Your task to perform on an android device: turn on data saver in the chrome app Image 0: 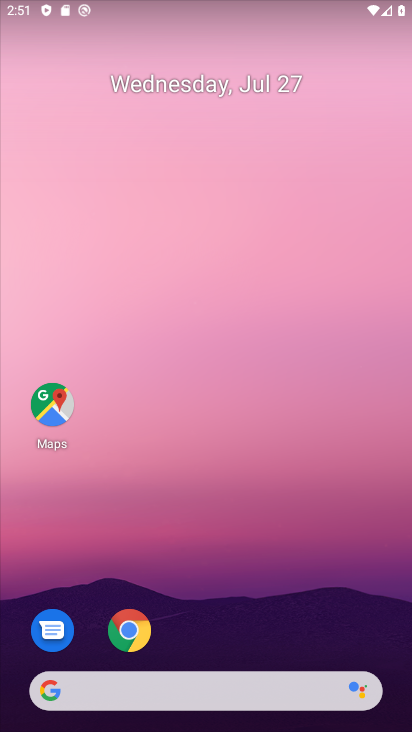
Step 0: drag from (250, 526) to (219, 163)
Your task to perform on an android device: turn on data saver in the chrome app Image 1: 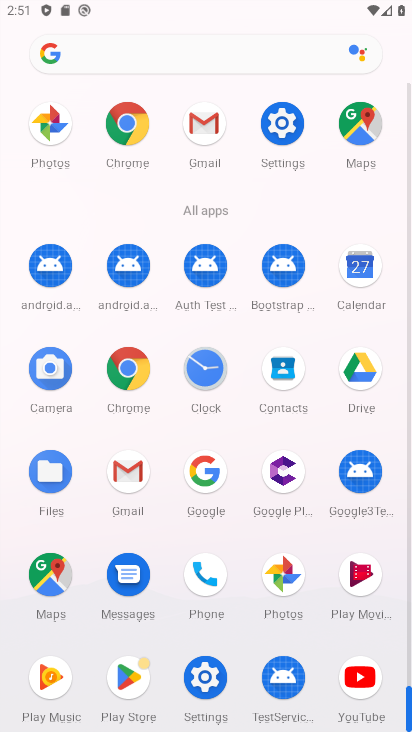
Step 1: click (124, 109)
Your task to perform on an android device: turn on data saver in the chrome app Image 2: 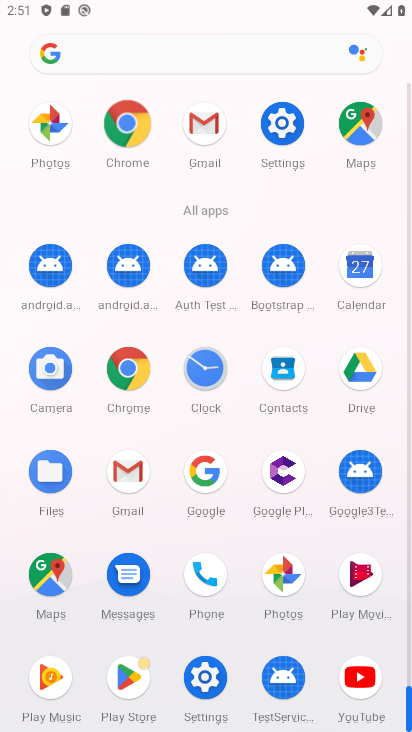
Step 2: click (125, 110)
Your task to perform on an android device: turn on data saver in the chrome app Image 3: 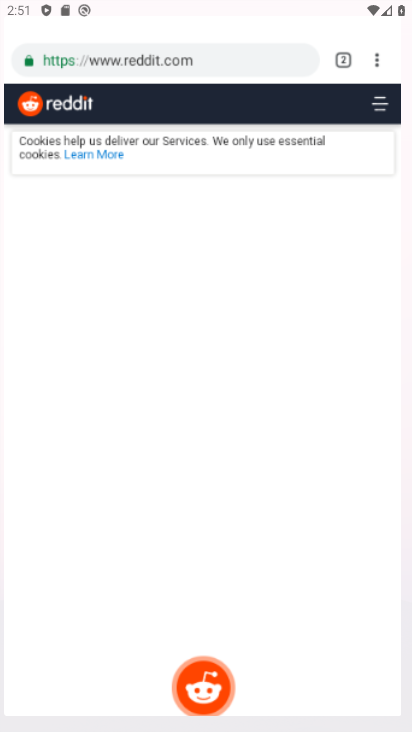
Step 3: click (126, 110)
Your task to perform on an android device: turn on data saver in the chrome app Image 4: 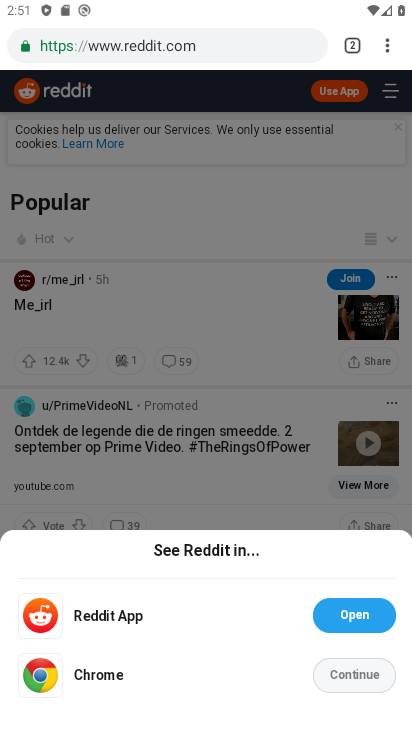
Step 4: click (93, 674)
Your task to perform on an android device: turn on data saver in the chrome app Image 5: 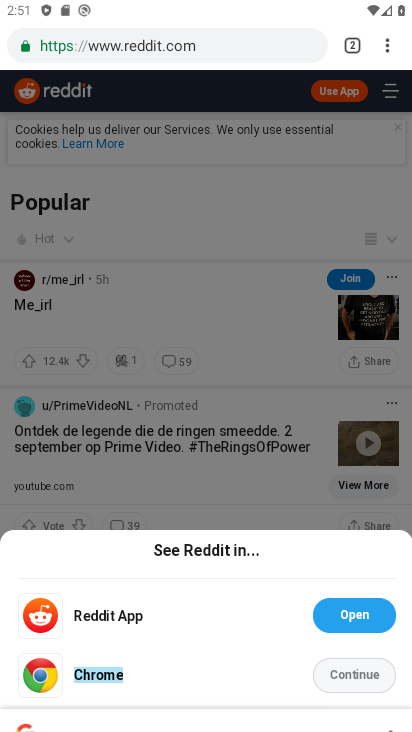
Step 5: click (93, 674)
Your task to perform on an android device: turn on data saver in the chrome app Image 6: 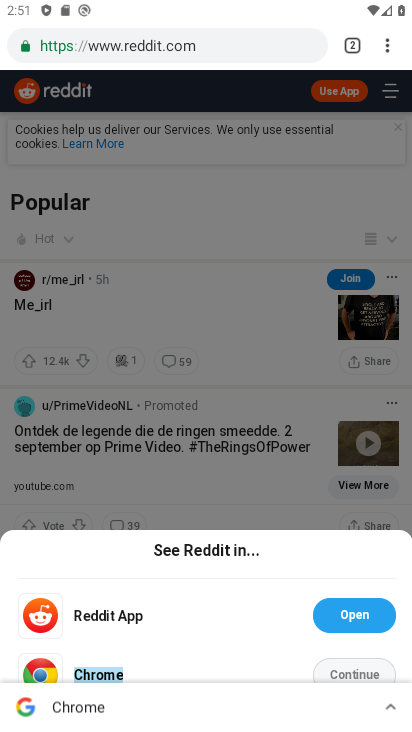
Step 6: click (360, 615)
Your task to perform on an android device: turn on data saver in the chrome app Image 7: 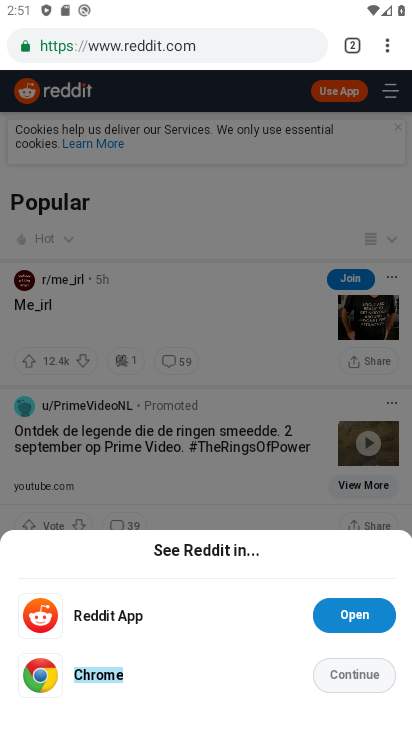
Step 7: click (360, 615)
Your task to perform on an android device: turn on data saver in the chrome app Image 8: 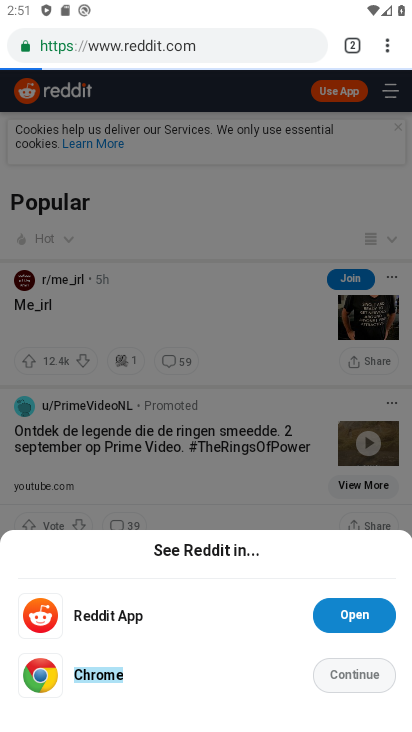
Step 8: click (360, 615)
Your task to perform on an android device: turn on data saver in the chrome app Image 9: 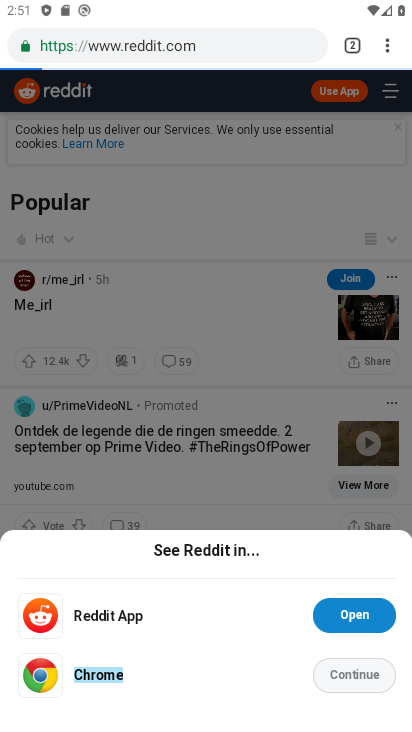
Step 9: click (360, 615)
Your task to perform on an android device: turn on data saver in the chrome app Image 10: 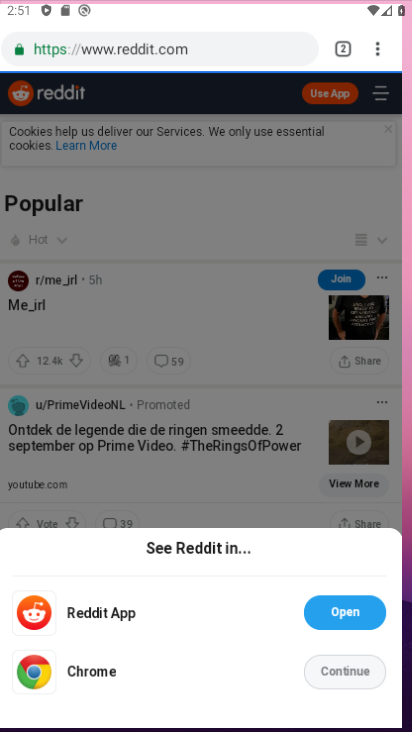
Step 10: click (362, 613)
Your task to perform on an android device: turn on data saver in the chrome app Image 11: 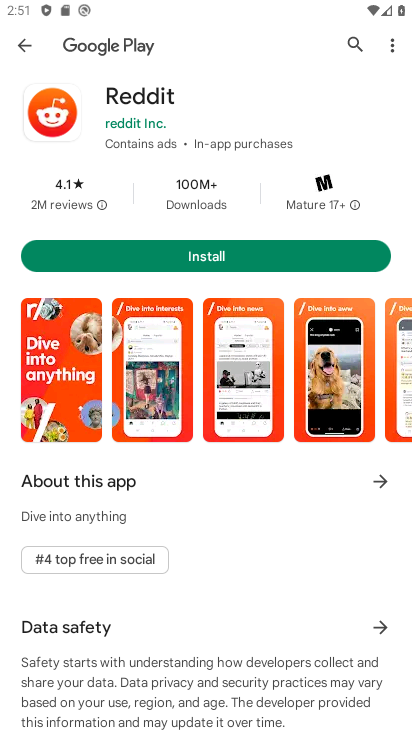
Step 11: click (23, 40)
Your task to perform on an android device: turn on data saver in the chrome app Image 12: 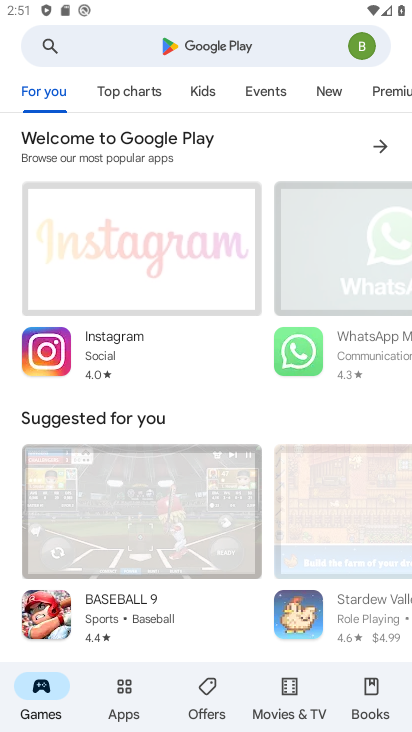
Step 12: press back button
Your task to perform on an android device: turn on data saver in the chrome app Image 13: 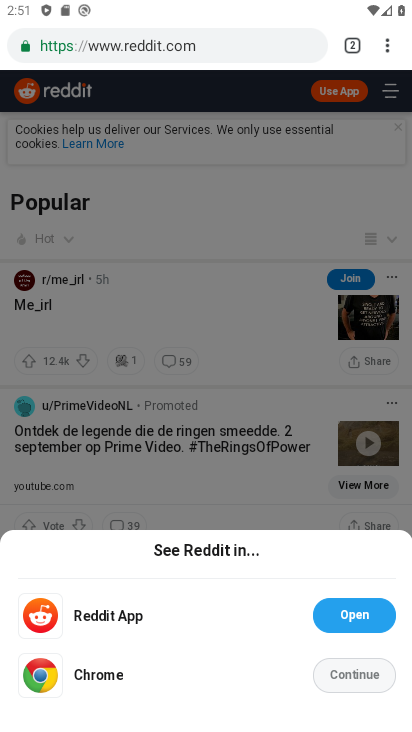
Step 13: press back button
Your task to perform on an android device: turn on data saver in the chrome app Image 14: 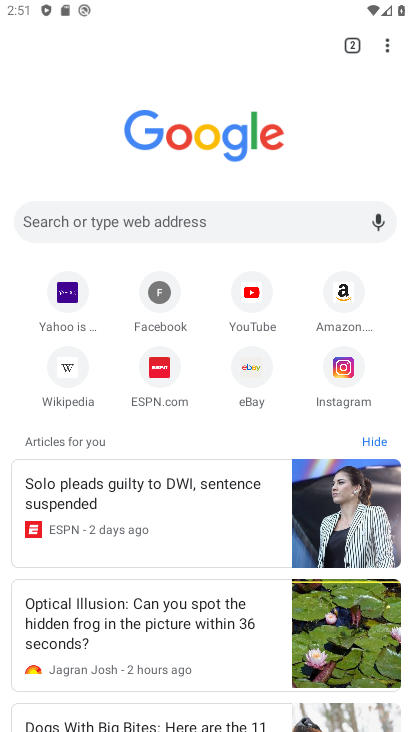
Step 14: drag from (384, 45) to (223, 374)
Your task to perform on an android device: turn on data saver in the chrome app Image 15: 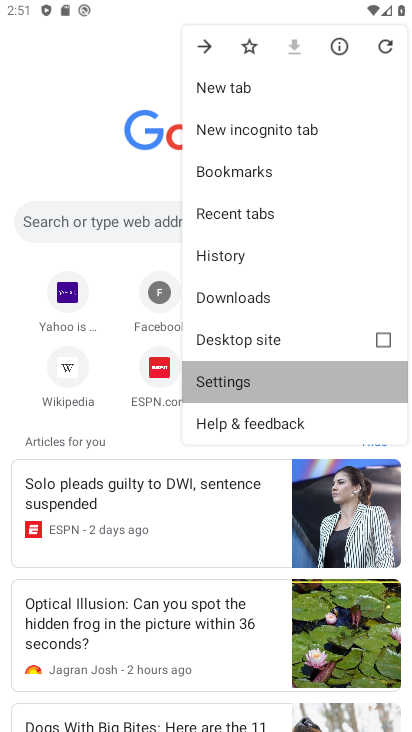
Step 15: click (236, 390)
Your task to perform on an android device: turn on data saver in the chrome app Image 16: 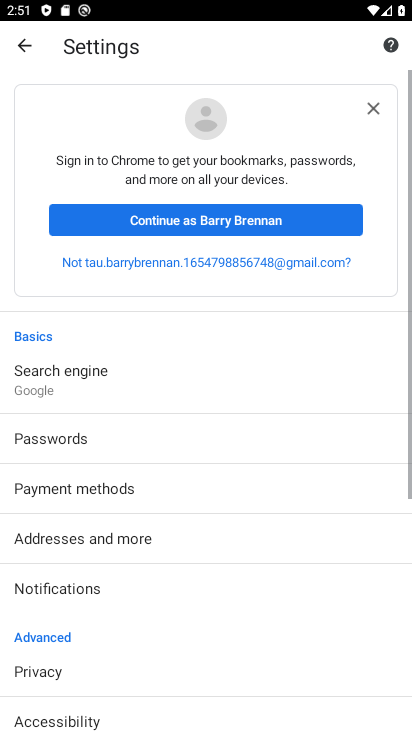
Step 16: drag from (145, 625) to (140, 207)
Your task to perform on an android device: turn on data saver in the chrome app Image 17: 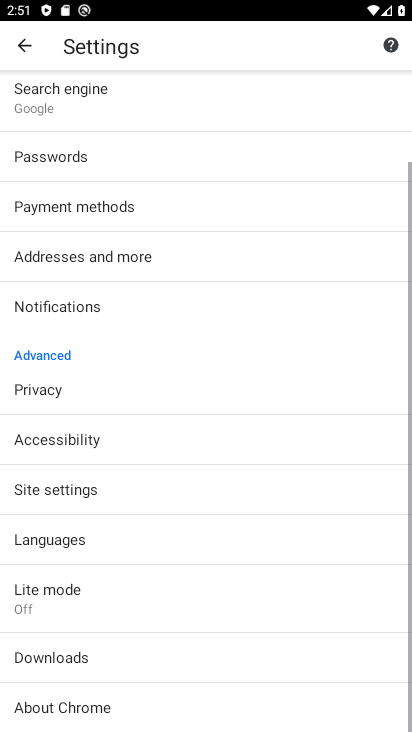
Step 17: drag from (157, 622) to (159, 374)
Your task to perform on an android device: turn on data saver in the chrome app Image 18: 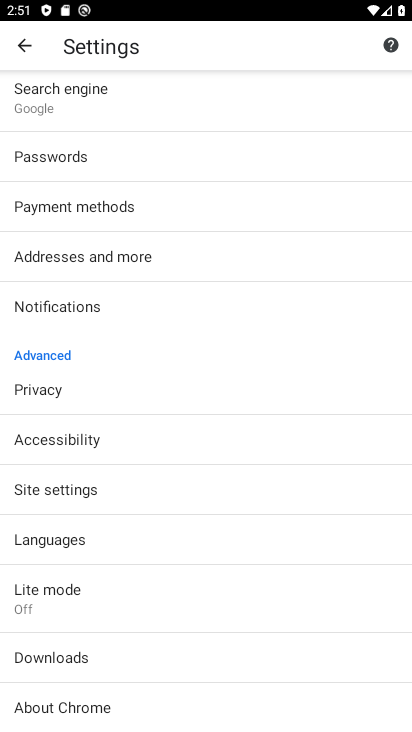
Step 18: click (57, 574)
Your task to perform on an android device: turn on data saver in the chrome app Image 19: 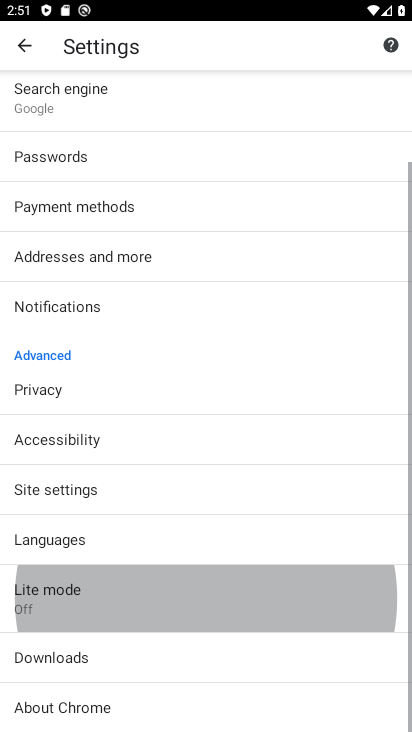
Step 19: click (52, 578)
Your task to perform on an android device: turn on data saver in the chrome app Image 20: 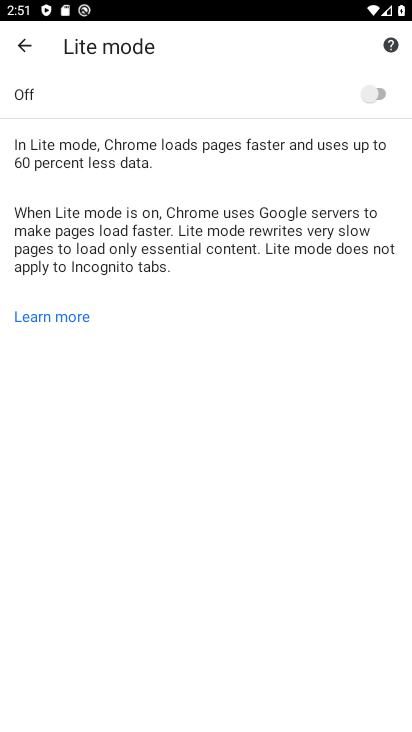
Step 20: click (363, 93)
Your task to perform on an android device: turn on data saver in the chrome app Image 21: 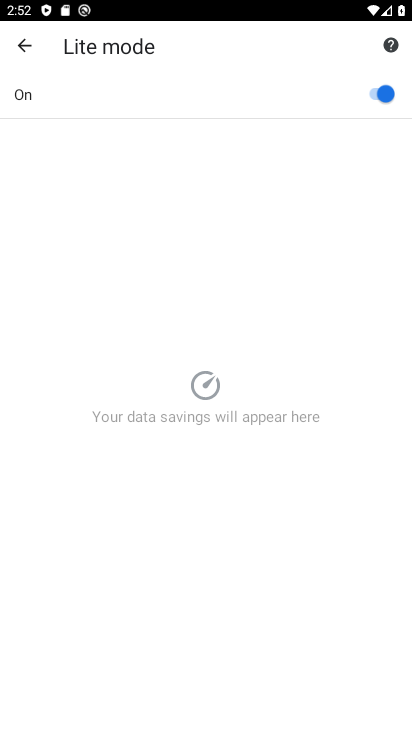
Step 21: task complete